Your task to perform on an android device: toggle show notifications on the lock screen Image 0: 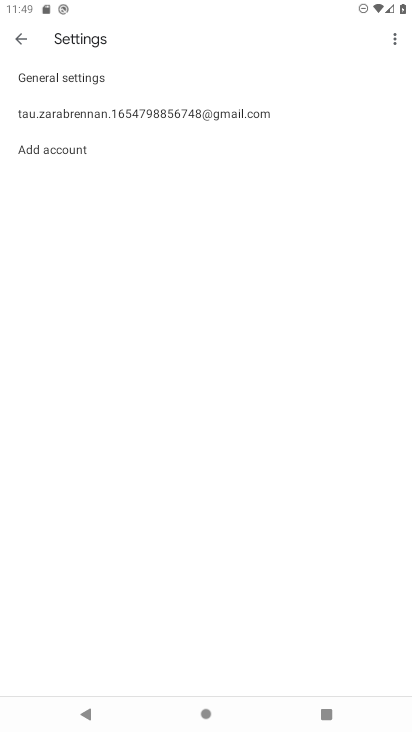
Step 0: press home button
Your task to perform on an android device: toggle show notifications on the lock screen Image 1: 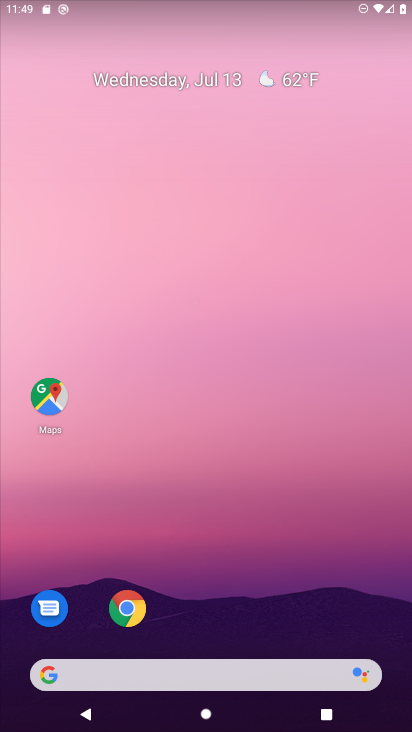
Step 1: drag from (236, 712) to (219, 233)
Your task to perform on an android device: toggle show notifications on the lock screen Image 2: 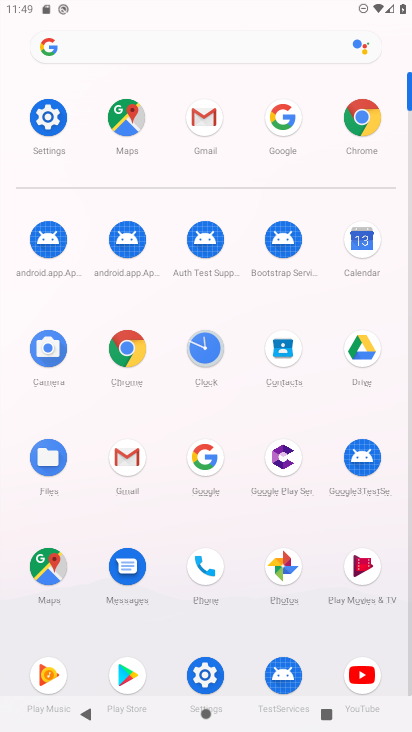
Step 2: click (39, 119)
Your task to perform on an android device: toggle show notifications on the lock screen Image 3: 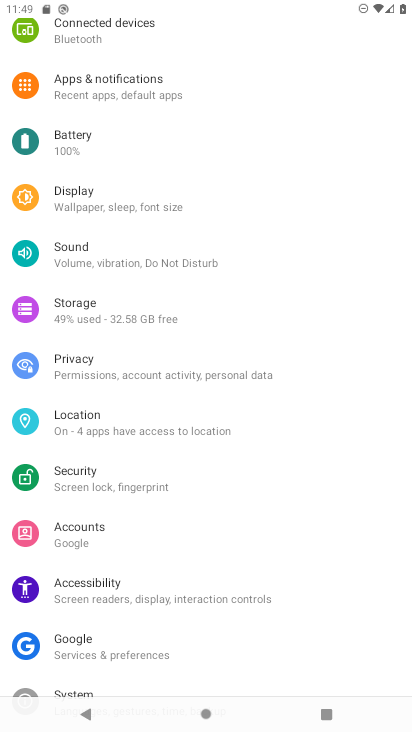
Step 3: click (97, 95)
Your task to perform on an android device: toggle show notifications on the lock screen Image 4: 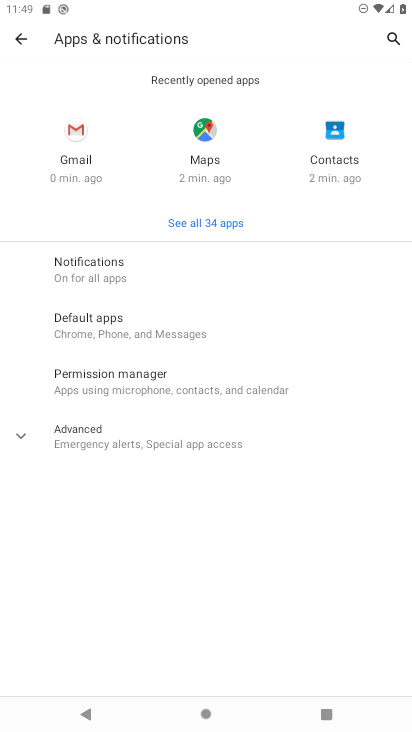
Step 4: click (99, 267)
Your task to perform on an android device: toggle show notifications on the lock screen Image 5: 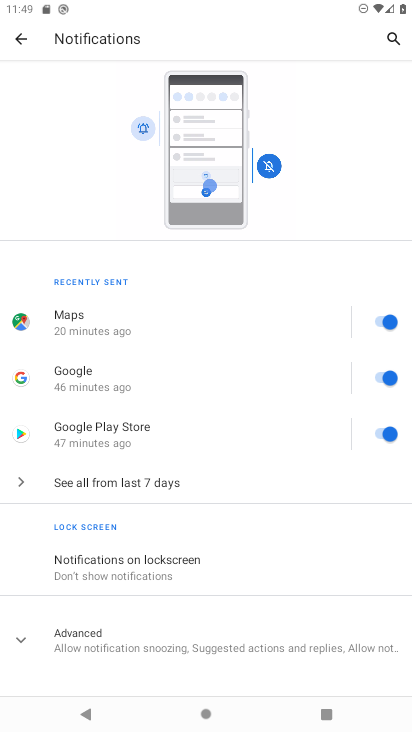
Step 5: click (111, 572)
Your task to perform on an android device: toggle show notifications on the lock screen Image 6: 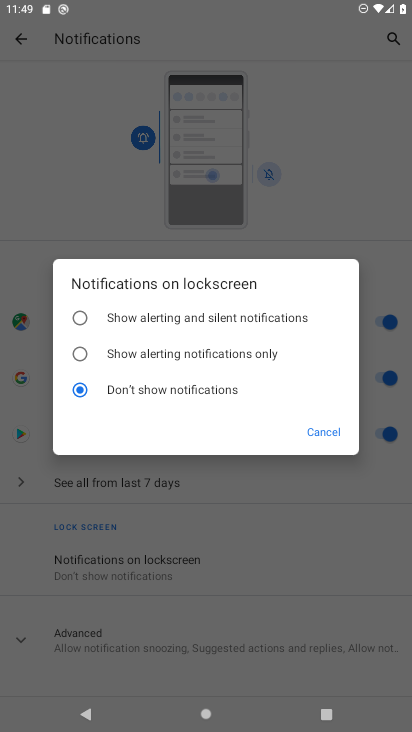
Step 6: click (76, 316)
Your task to perform on an android device: toggle show notifications on the lock screen Image 7: 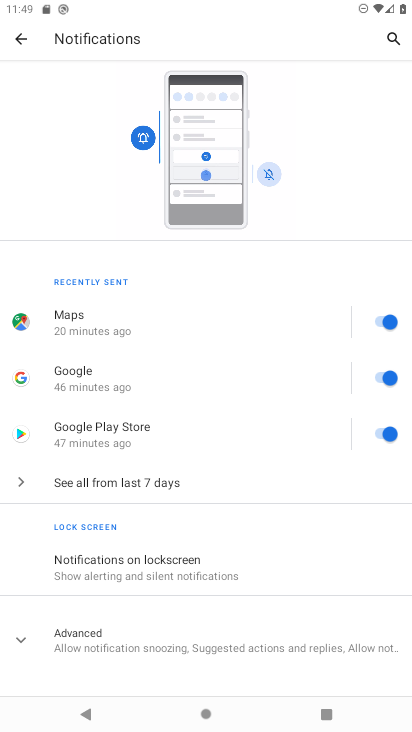
Step 7: task complete